Your task to perform on an android device: open chrome privacy settings Image 0: 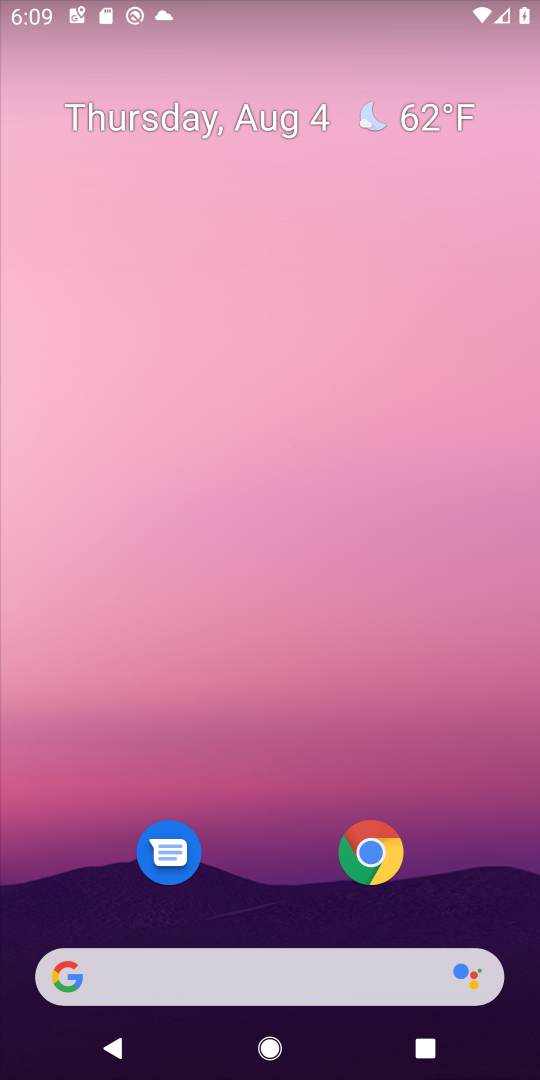
Step 0: click (386, 860)
Your task to perform on an android device: open chrome privacy settings Image 1: 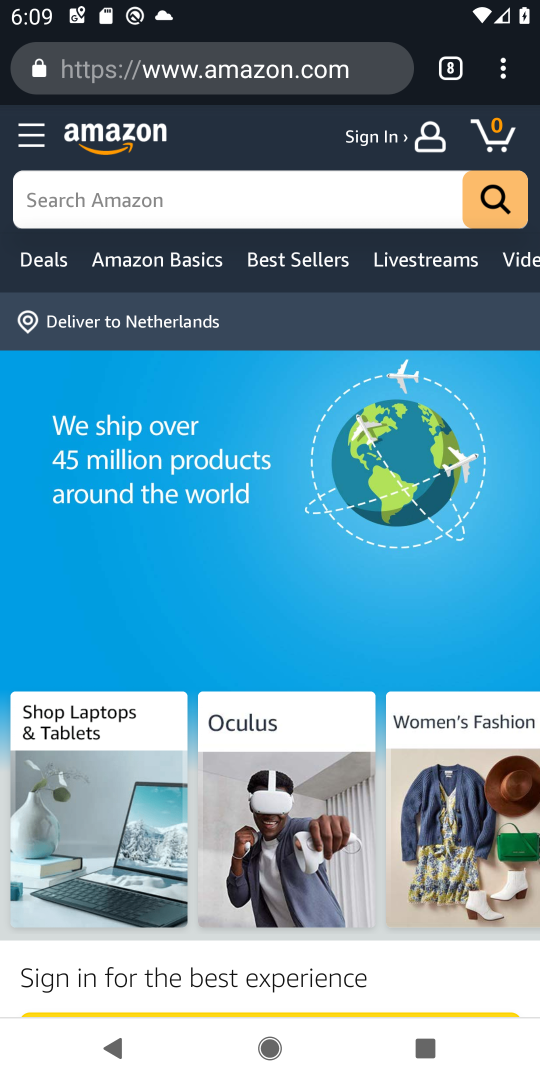
Step 1: click (510, 85)
Your task to perform on an android device: open chrome privacy settings Image 2: 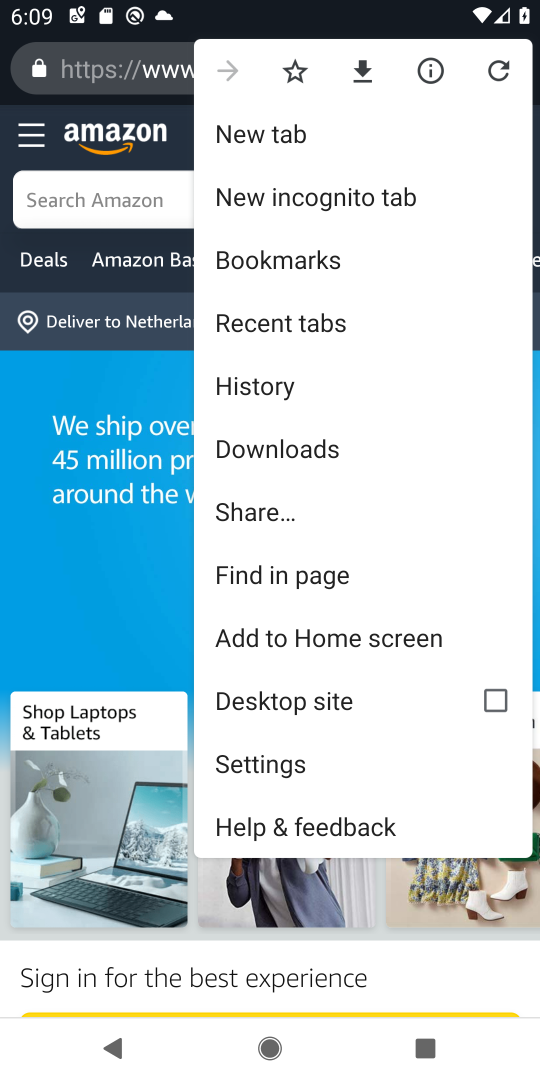
Step 2: click (237, 767)
Your task to perform on an android device: open chrome privacy settings Image 3: 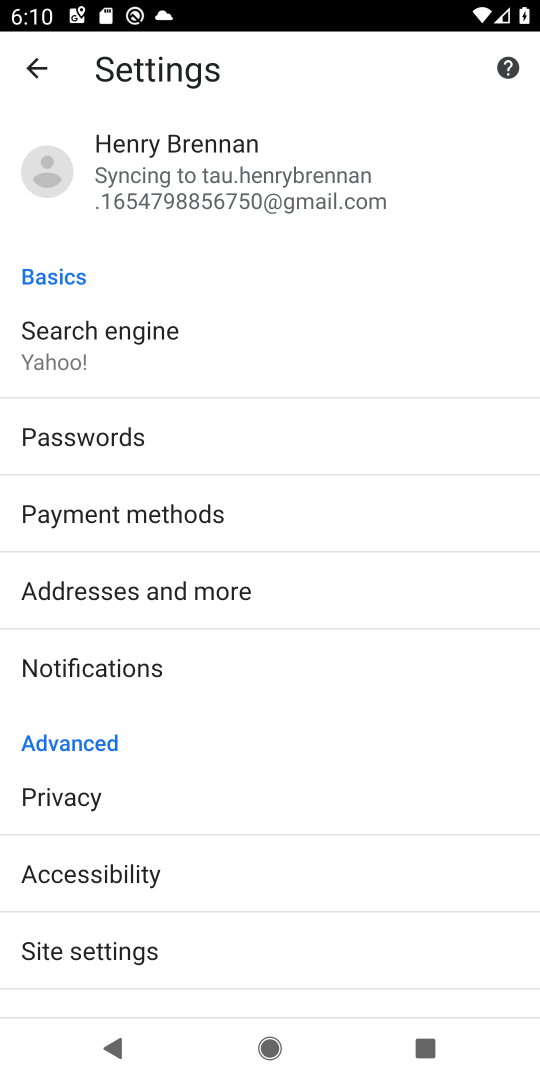
Step 3: click (62, 794)
Your task to perform on an android device: open chrome privacy settings Image 4: 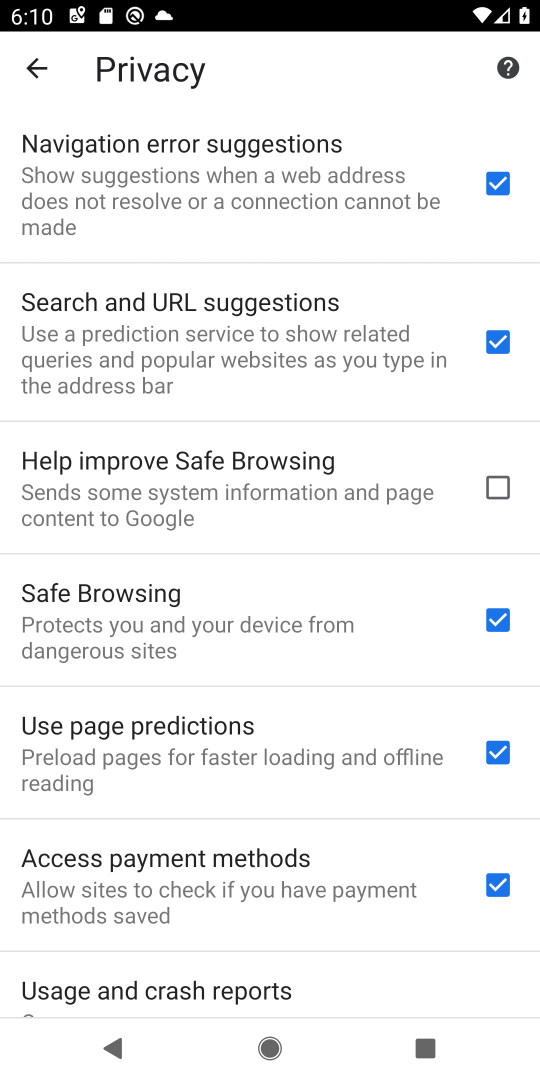
Step 4: task complete